Your task to perform on an android device: Search for sushi restaurants on Maps Image 0: 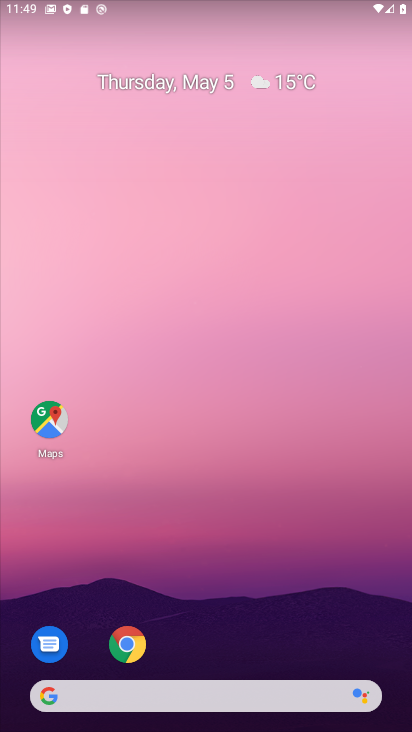
Step 0: drag from (267, 577) to (203, 6)
Your task to perform on an android device: Search for sushi restaurants on Maps Image 1: 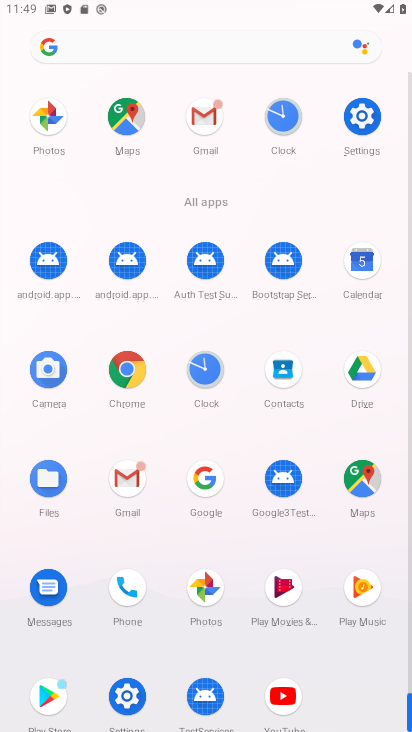
Step 1: drag from (12, 570) to (30, 336)
Your task to perform on an android device: Search for sushi restaurants on Maps Image 2: 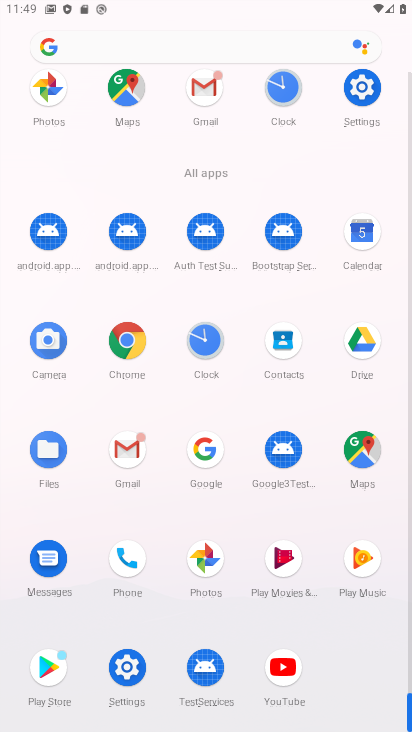
Step 2: click (359, 449)
Your task to perform on an android device: Search for sushi restaurants on Maps Image 3: 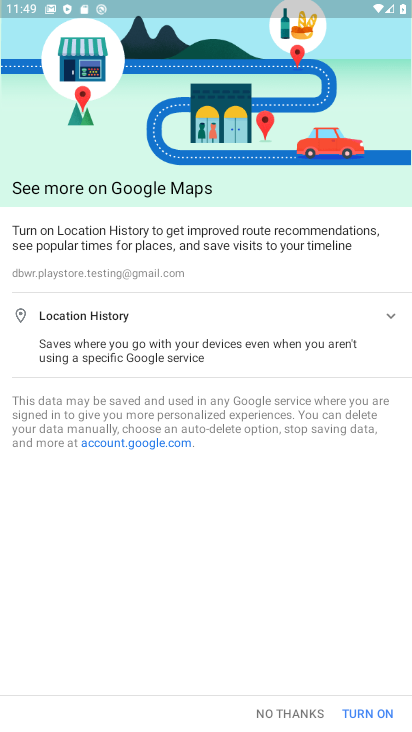
Step 3: click (356, 715)
Your task to perform on an android device: Search for sushi restaurants on Maps Image 4: 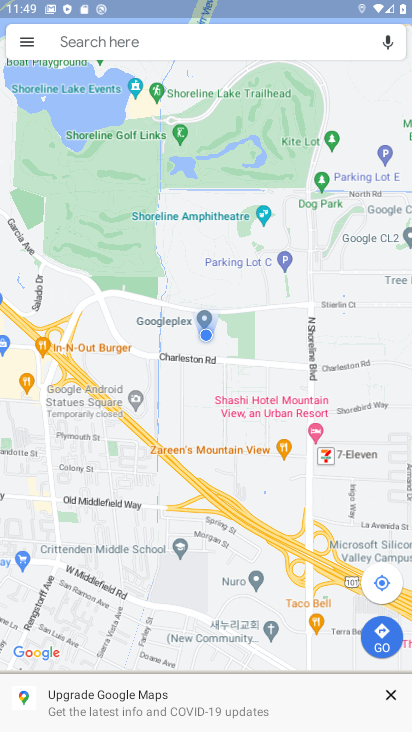
Step 4: click (199, 43)
Your task to perform on an android device: Search for sushi restaurants on Maps Image 5: 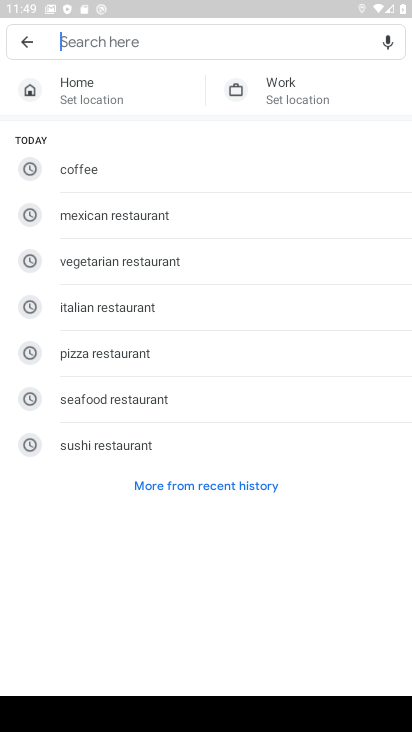
Step 5: click (130, 447)
Your task to perform on an android device: Search for sushi restaurants on Maps Image 6: 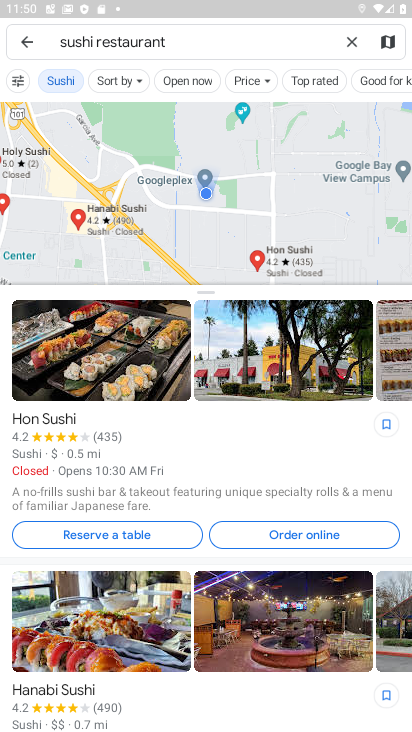
Step 6: task complete